Your task to perform on an android device: Open Chrome and go to settings Image 0: 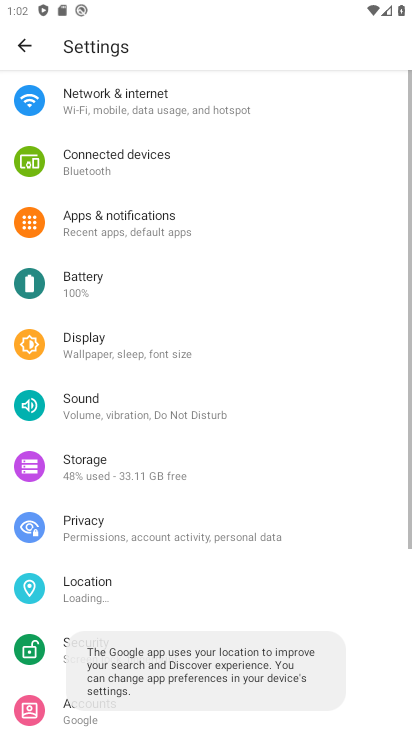
Step 0: press home button
Your task to perform on an android device: Open Chrome and go to settings Image 1: 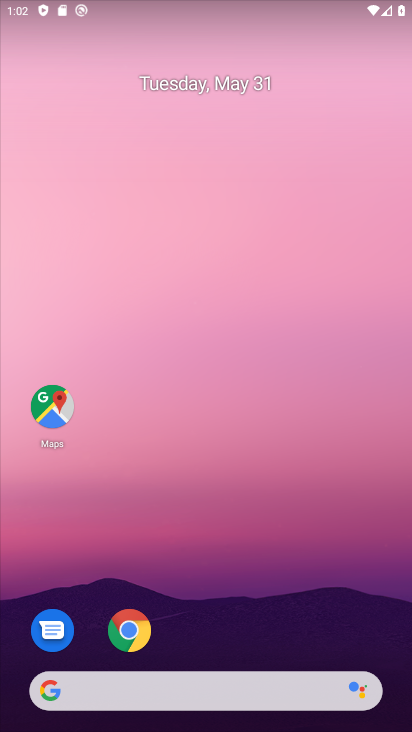
Step 1: click (127, 628)
Your task to perform on an android device: Open Chrome and go to settings Image 2: 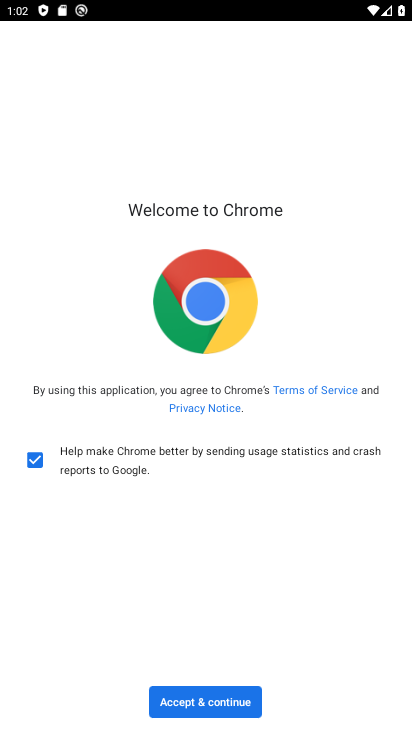
Step 2: click (196, 721)
Your task to perform on an android device: Open Chrome and go to settings Image 3: 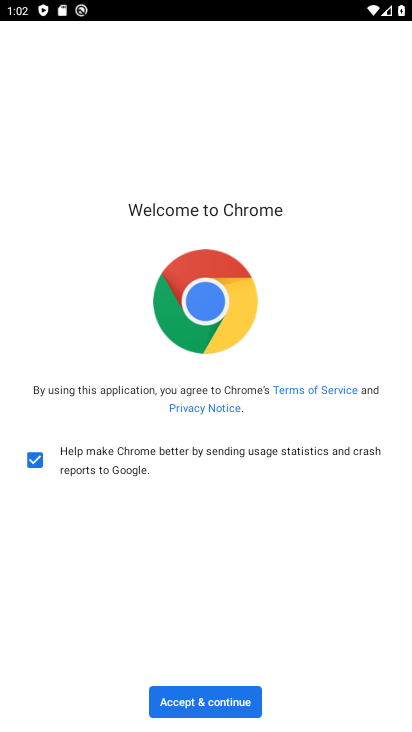
Step 3: click (201, 708)
Your task to perform on an android device: Open Chrome and go to settings Image 4: 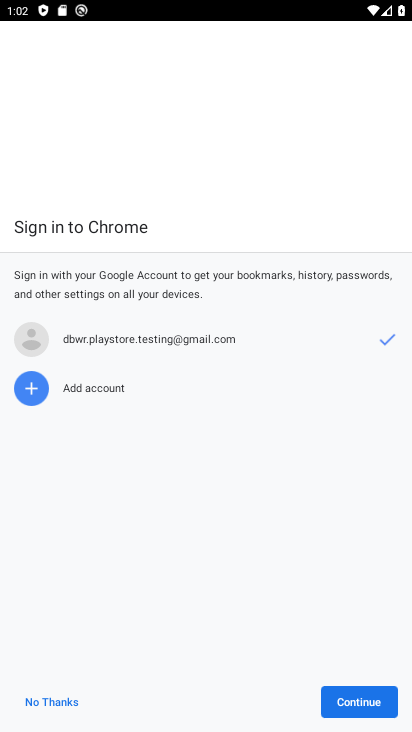
Step 4: click (355, 703)
Your task to perform on an android device: Open Chrome and go to settings Image 5: 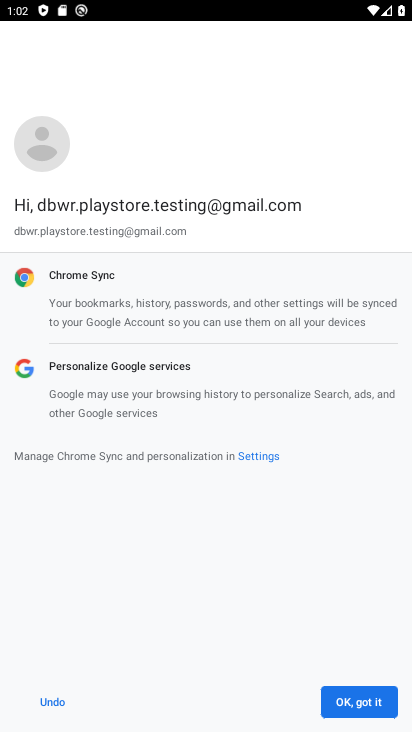
Step 5: click (355, 703)
Your task to perform on an android device: Open Chrome and go to settings Image 6: 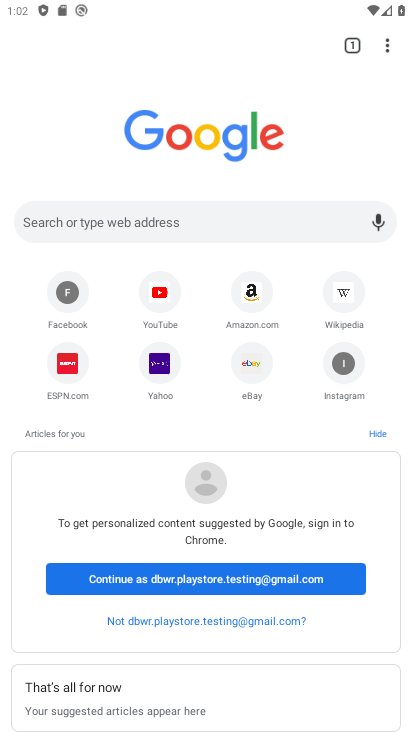
Step 6: click (381, 44)
Your task to perform on an android device: Open Chrome and go to settings Image 7: 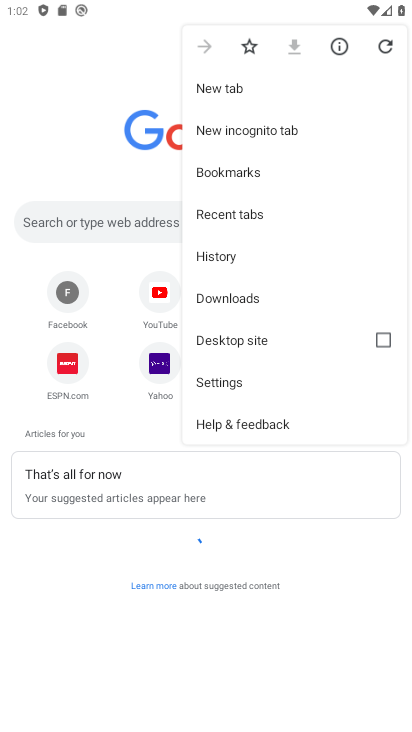
Step 7: click (227, 389)
Your task to perform on an android device: Open Chrome and go to settings Image 8: 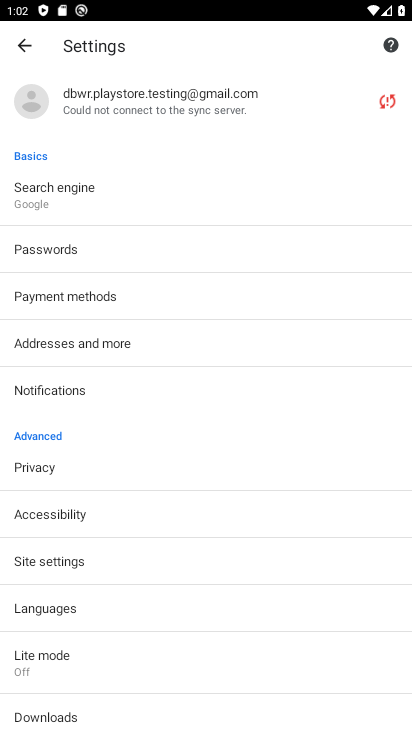
Step 8: task complete